Your task to perform on an android device: Open notification settings Image 0: 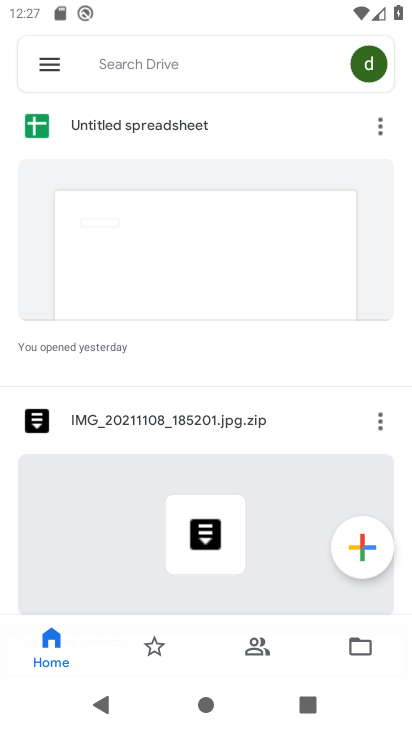
Step 0: press home button
Your task to perform on an android device: Open notification settings Image 1: 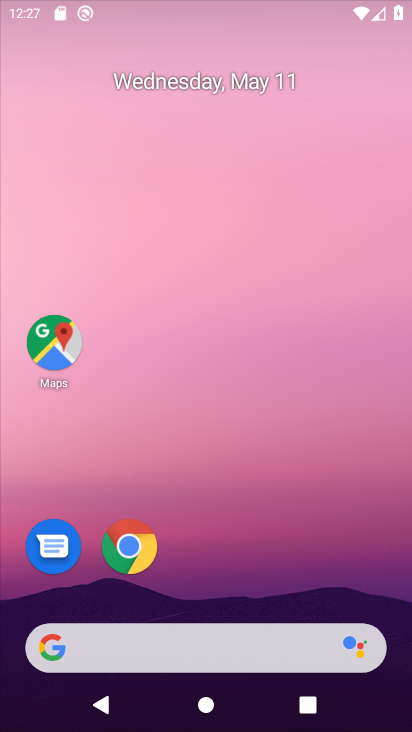
Step 1: drag from (232, 524) to (258, 222)
Your task to perform on an android device: Open notification settings Image 2: 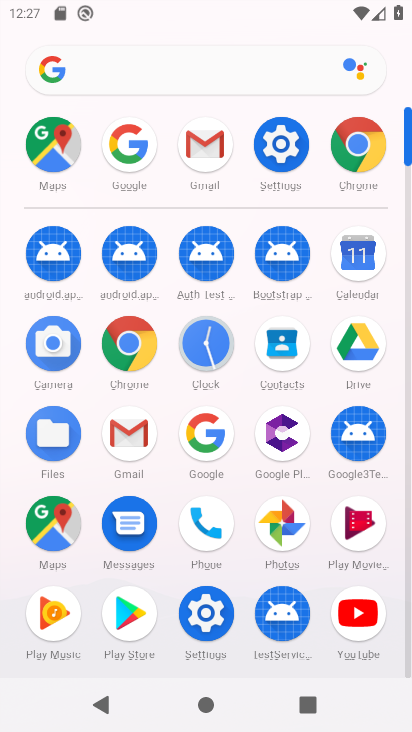
Step 2: click (273, 138)
Your task to perform on an android device: Open notification settings Image 3: 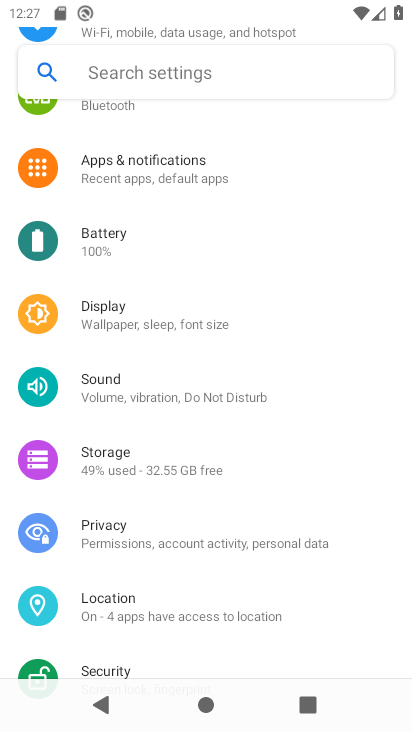
Step 3: click (142, 166)
Your task to perform on an android device: Open notification settings Image 4: 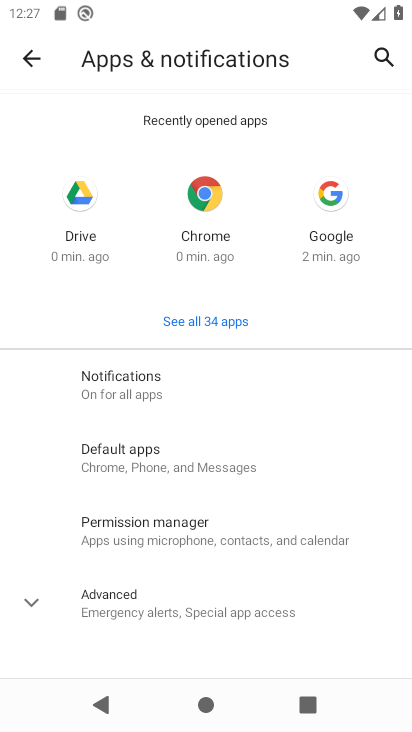
Step 4: click (142, 166)
Your task to perform on an android device: Open notification settings Image 5: 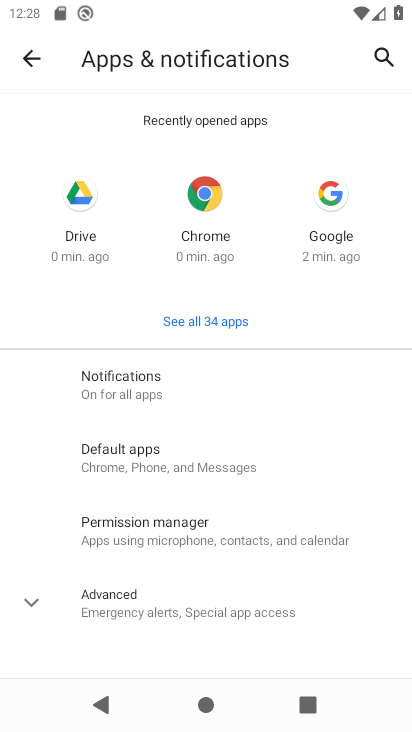
Step 5: task complete